Your task to perform on an android device: Open ESPN.com Image 0: 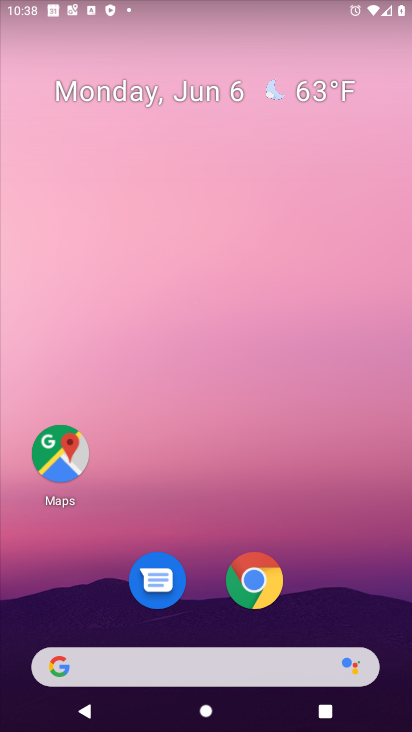
Step 0: drag from (350, 625) to (315, 97)
Your task to perform on an android device: Open ESPN.com Image 1: 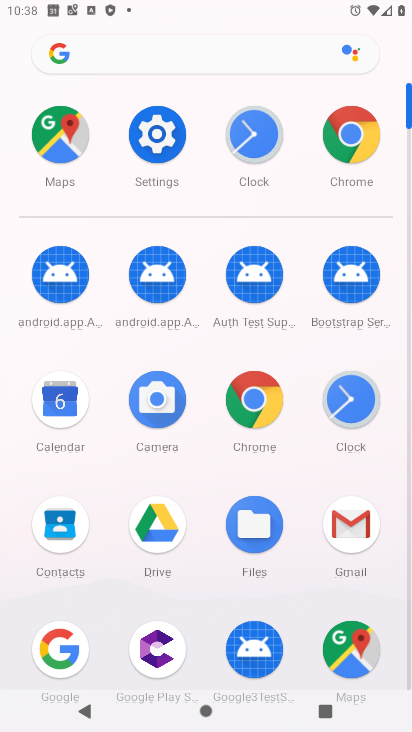
Step 1: click (350, 131)
Your task to perform on an android device: Open ESPN.com Image 2: 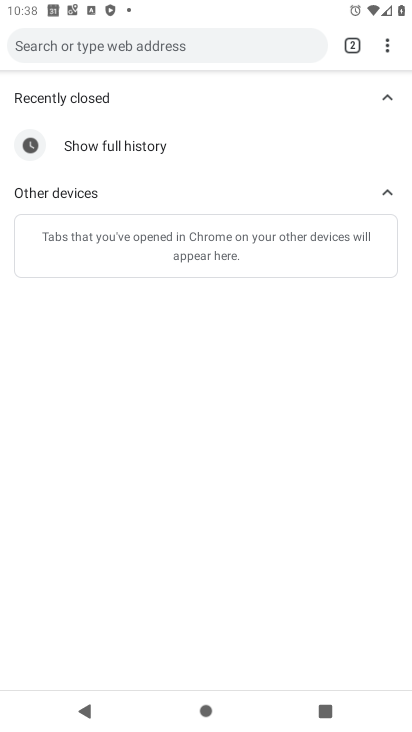
Step 2: click (179, 56)
Your task to perform on an android device: Open ESPN.com Image 3: 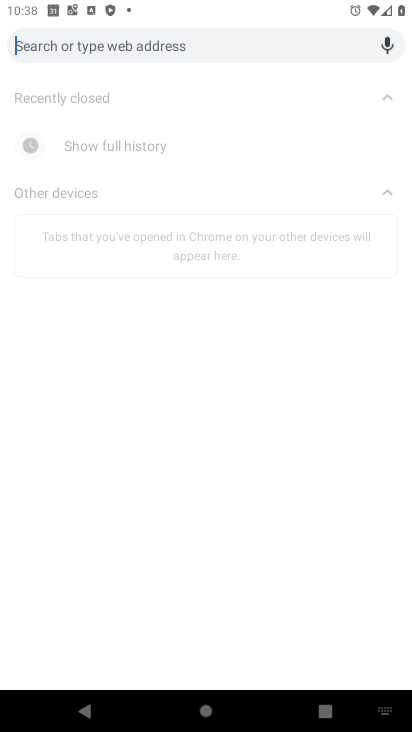
Step 3: type "espn"
Your task to perform on an android device: Open ESPN.com Image 4: 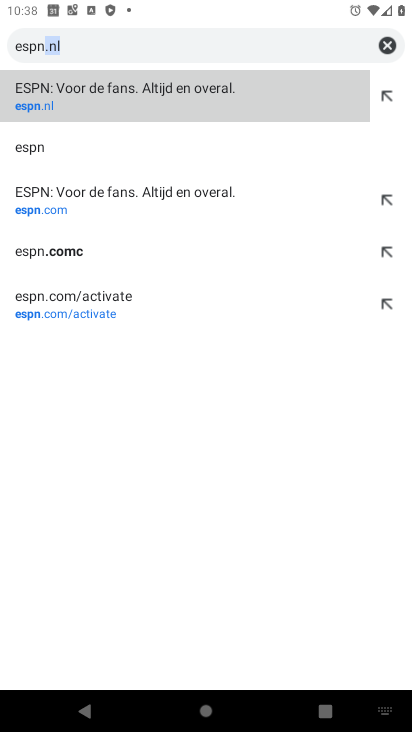
Step 4: click (86, 204)
Your task to perform on an android device: Open ESPN.com Image 5: 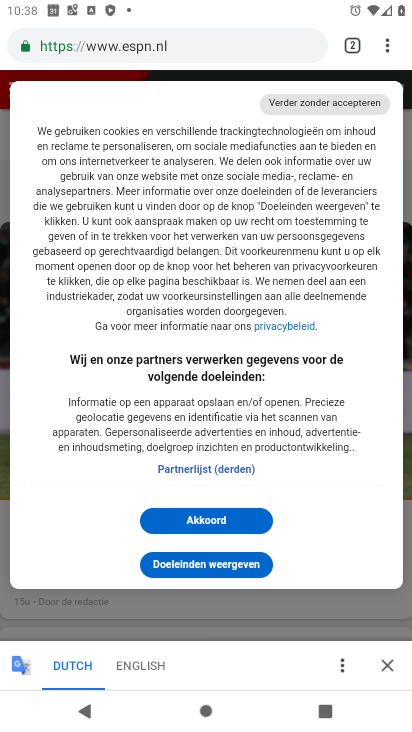
Step 5: task complete